Your task to perform on an android device: move a message to another label in the gmail app Image 0: 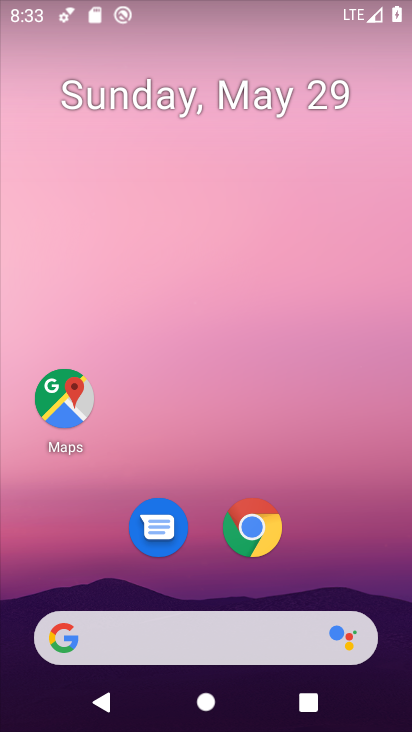
Step 0: press home button
Your task to perform on an android device: move a message to another label in the gmail app Image 1: 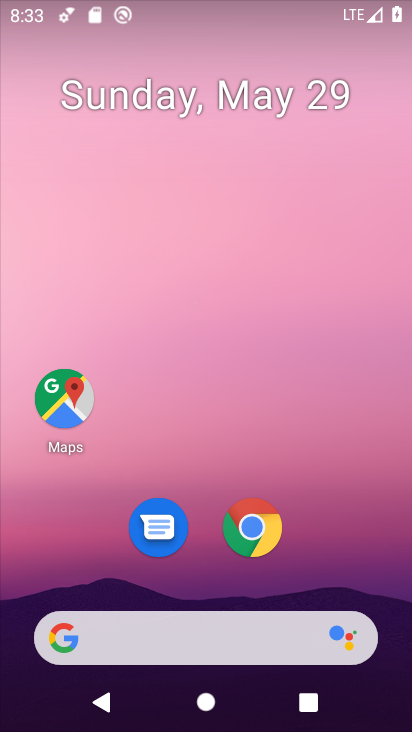
Step 1: drag from (239, 578) to (254, 52)
Your task to perform on an android device: move a message to another label in the gmail app Image 2: 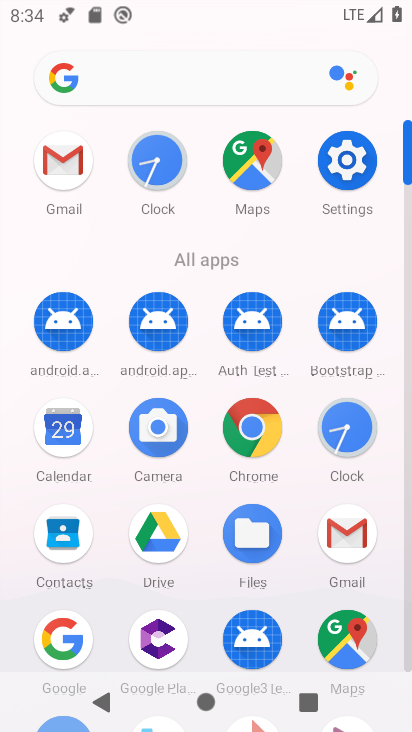
Step 2: click (346, 527)
Your task to perform on an android device: move a message to another label in the gmail app Image 3: 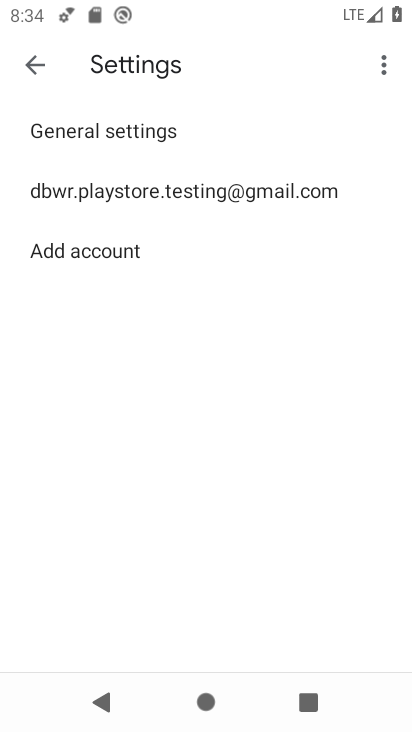
Step 3: click (35, 66)
Your task to perform on an android device: move a message to another label in the gmail app Image 4: 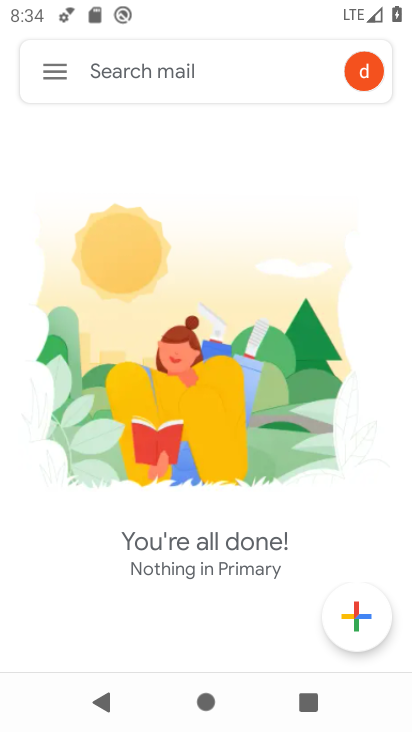
Step 4: task complete